Your task to perform on an android device: Search for "corsair k70" on newegg.com, select the first entry, add it to the cart, then select checkout. Image 0: 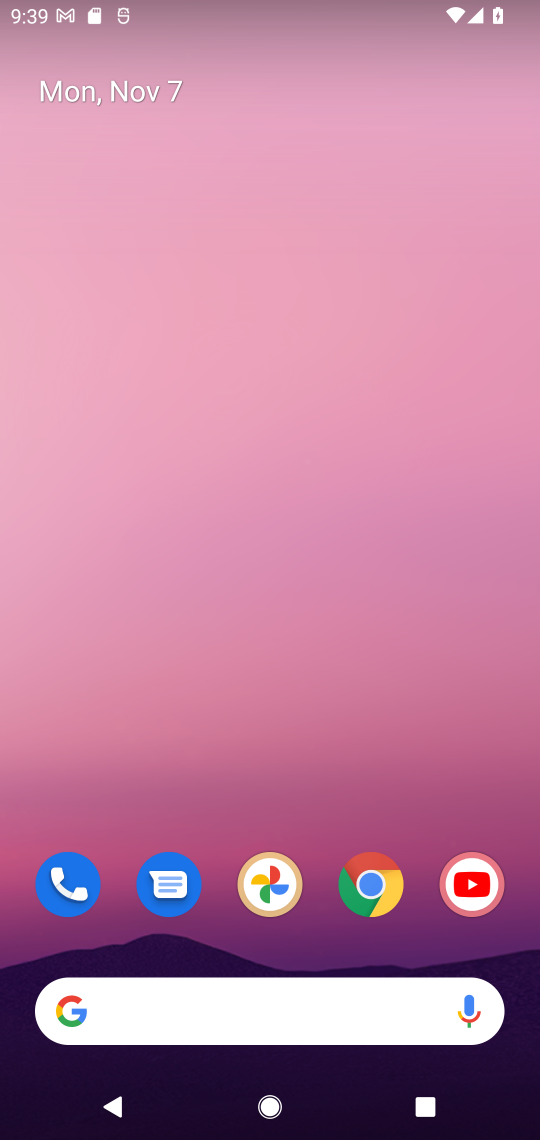
Step 0: click (361, 888)
Your task to perform on an android device: Search for "corsair k70" on newegg.com, select the first entry, add it to the cart, then select checkout. Image 1: 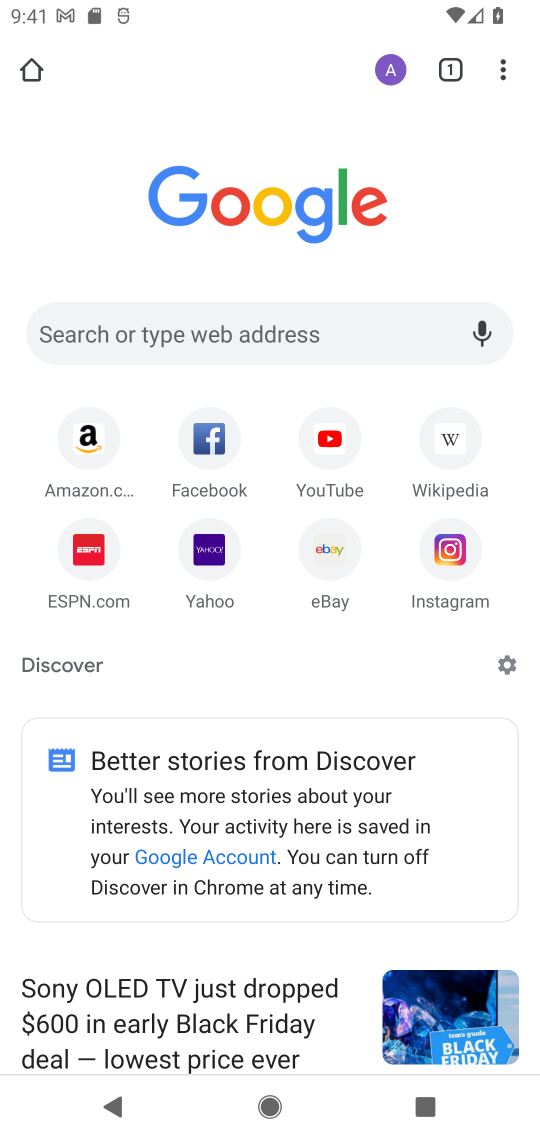
Step 1: click (281, 331)
Your task to perform on an android device: Search for "corsair k70" on newegg.com, select the first entry, add it to the cart, then select checkout. Image 2: 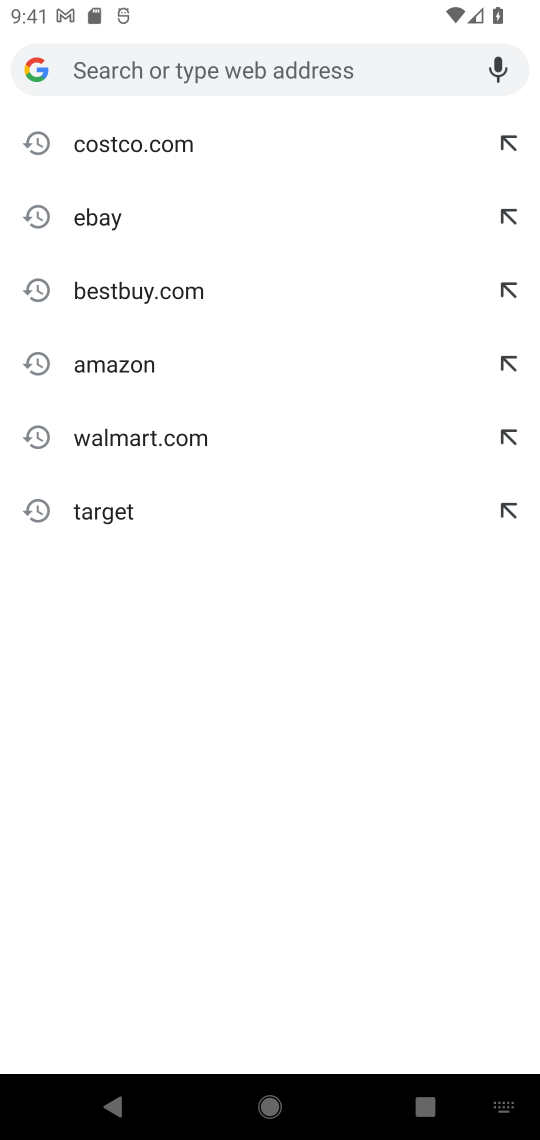
Step 2: type "corsair k70"
Your task to perform on an android device: Search for "corsair k70" on newegg.com, select the first entry, add it to the cart, then select checkout. Image 3: 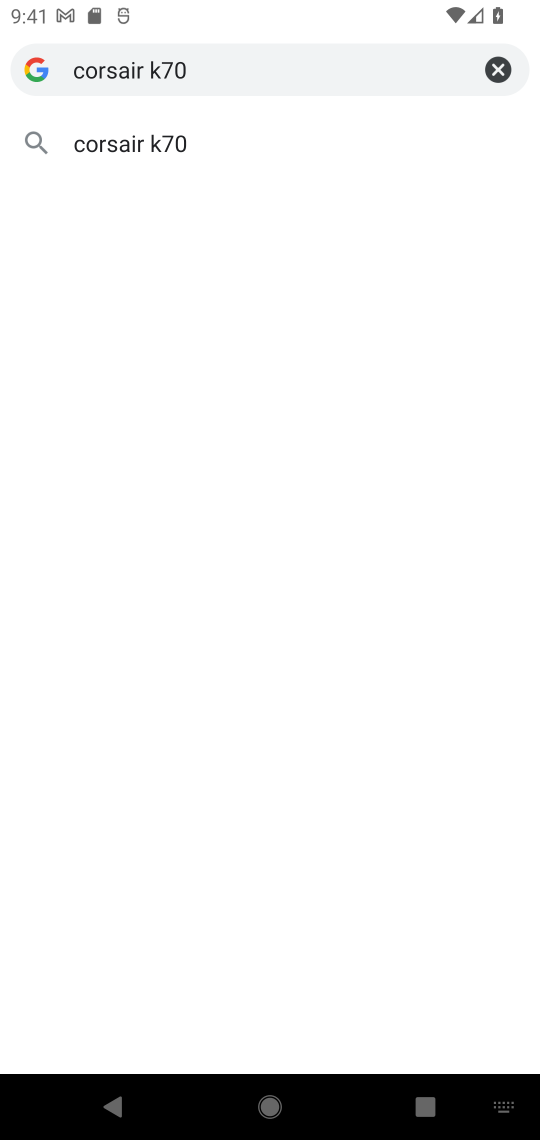
Step 3: click (165, 135)
Your task to perform on an android device: Search for "corsair k70" on newegg.com, select the first entry, add it to the cart, then select checkout. Image 4: 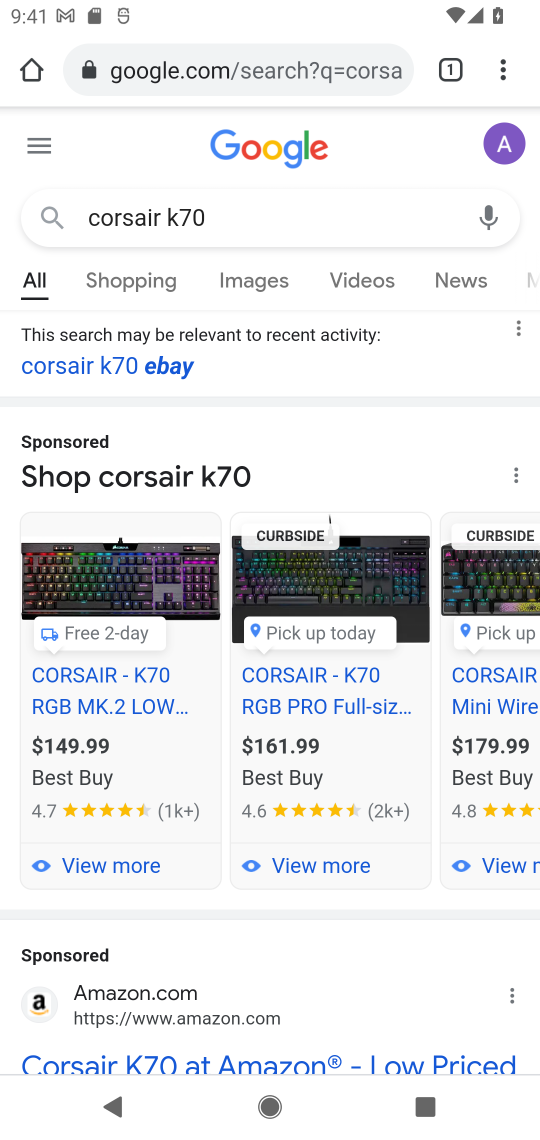
Step 4: click (316, 64)
Your task to perform on an android device: Search for "corsair k70" on newegg.com, select the first entry, add it to the cart, then select checkout. Image 5: 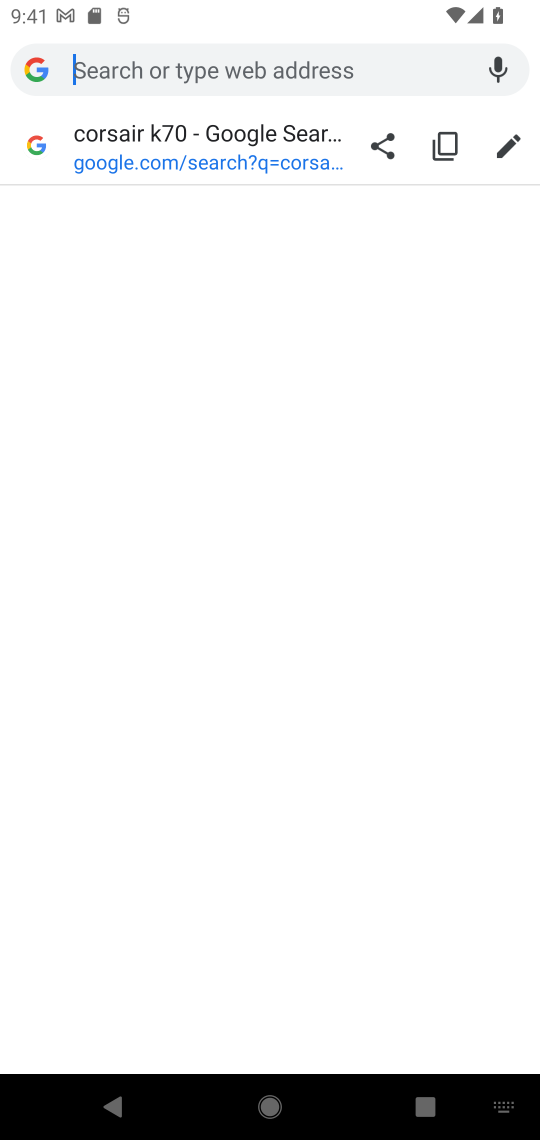
Step 5: type "newegg"
Your task to perform on an android device: Search for "corsair k70" on newegg.com, select the first entry, add it to the cart, then select checkout. Image 6: 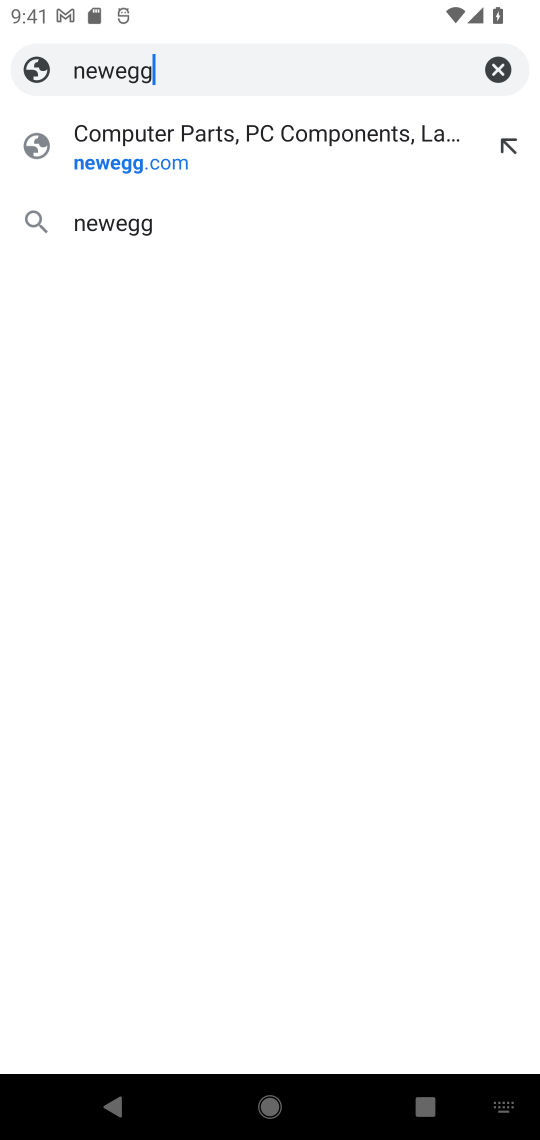
Step 6: click (127, 223)
Your task to perform on an android device: Search for "corsair k70" on newegg.com, select the first entry, add it to the cart, then select checkout. Image 7: 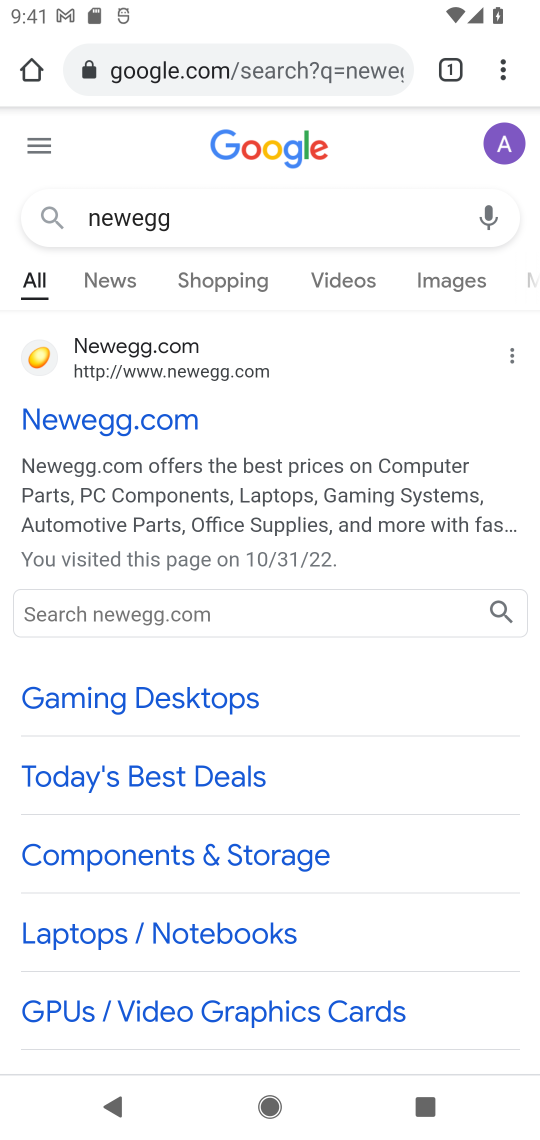
Step 7: click (147, 349)
Your task to perform on an android device: Search for "corsair k70" on newegg.com, select the first entry, add it to the cart, then select checkout. Image 8: 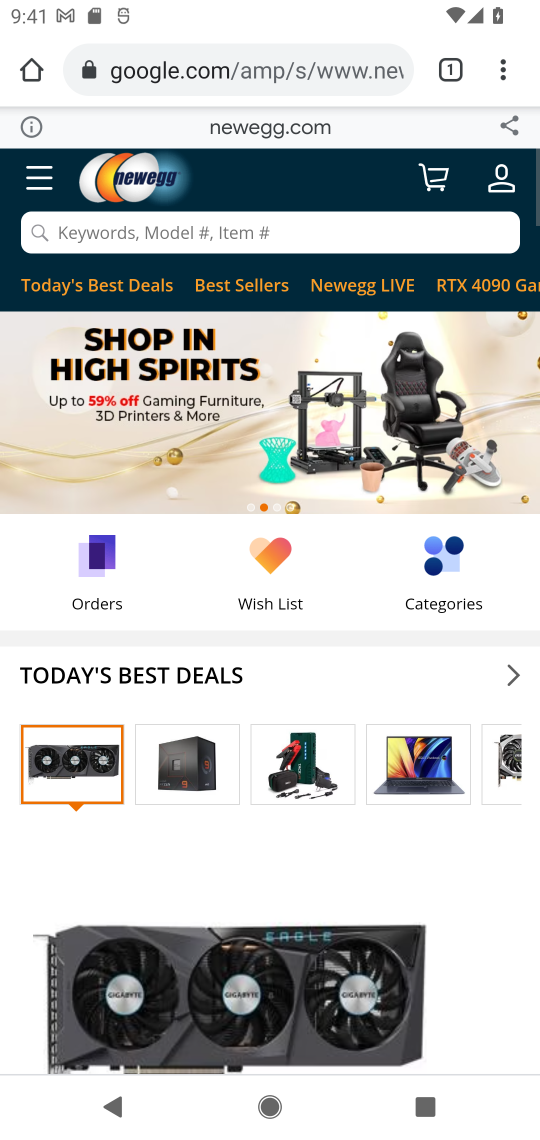
Step 8: click (244, 230)
Your task to perform on an android device: Search for "corsair k70" on newegg.com, select the first entry, add it to the cart, then select checkout. Image 9: 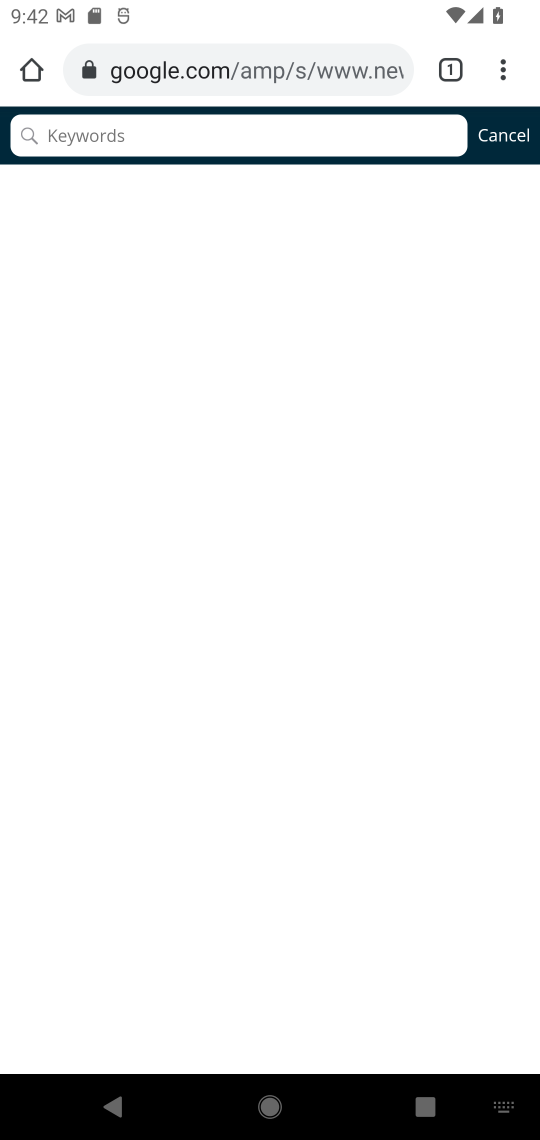
Step 9: type "corsair k70"
Your task to perform on an android device: Search for "corsair k70" on newegg.com, select the first entry, add it to the cart, then select checkout. Image 10: 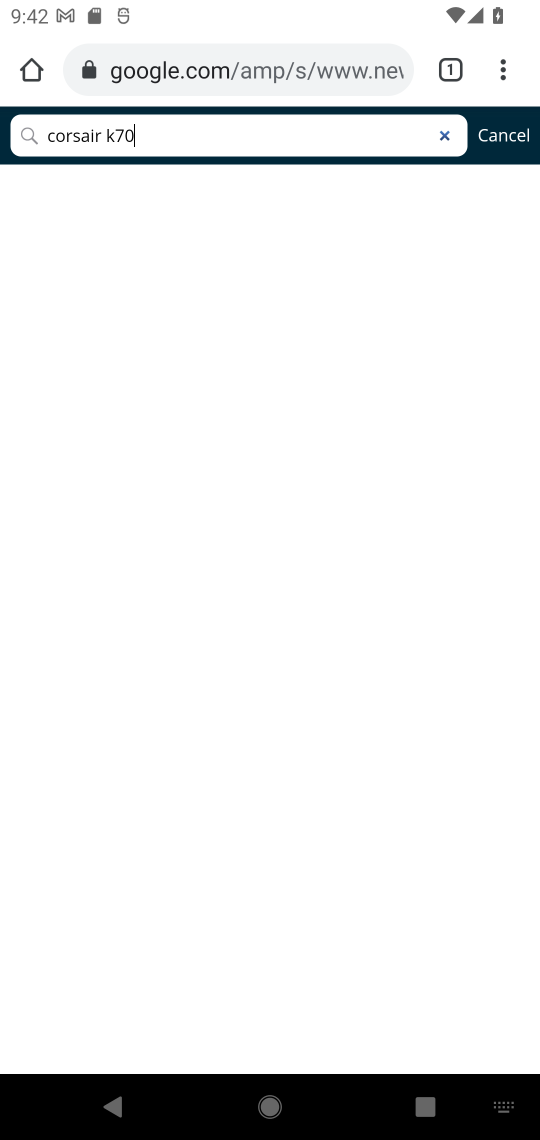
Step 10: press enter
Your task to perform on an android device: Search for "corsair k70" on newegg.com, select the first entry, add it to the cart, then select checkout. Image 11: 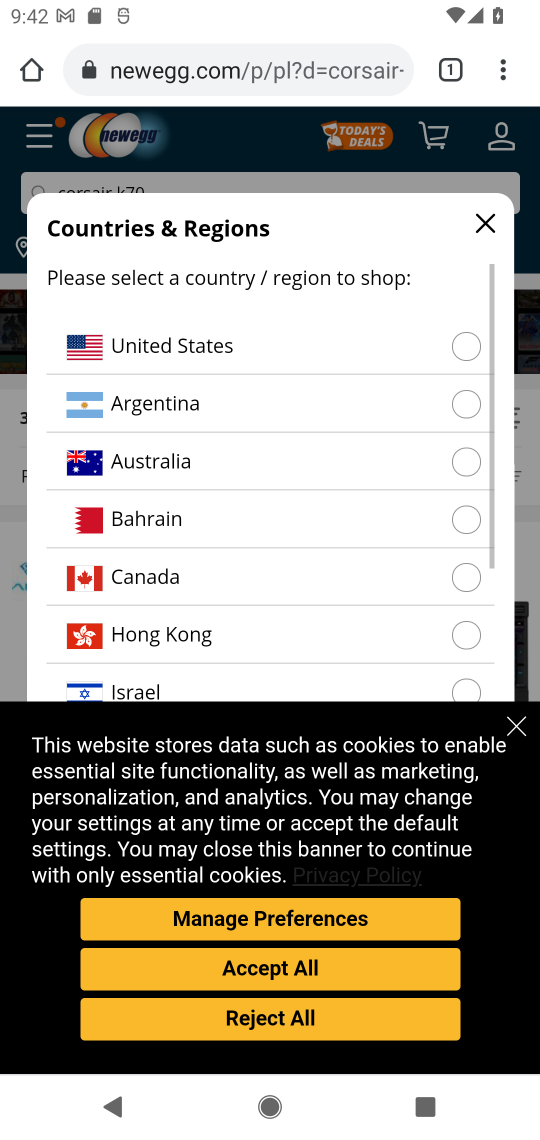
Step 11: click (468, 350)
Your task to perform on an android device: Search for "corsair k70" on newegg.com, select the first entry, add it to the cart, then select checkout. Image 12: 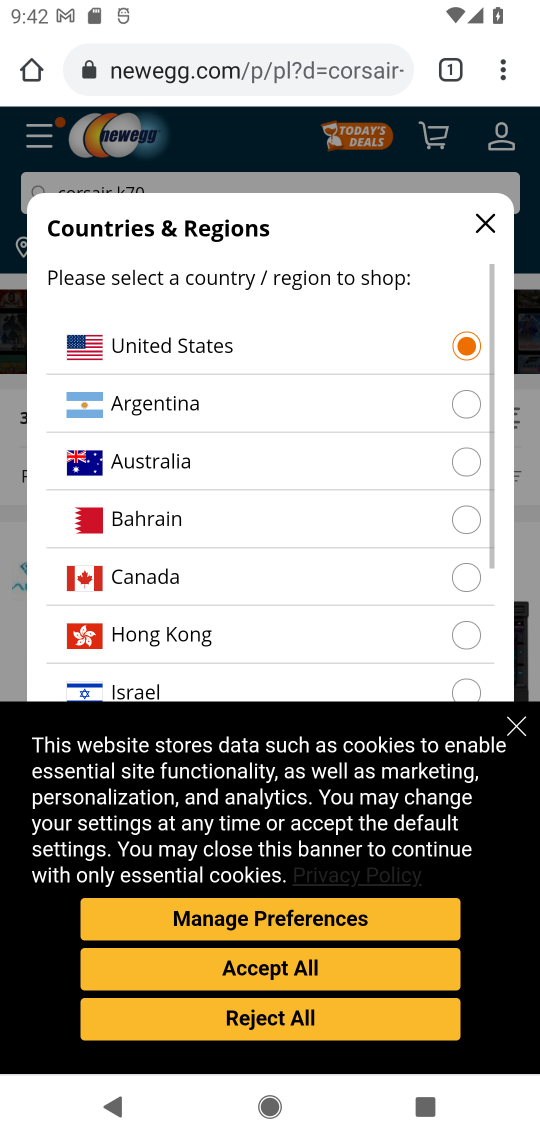
Step 12: click (516, 723)
Your task to perform on an android device: Search for "corsair k70" on newegg.com, select the first entry, add it to the cart, then select checkout. Image 13: 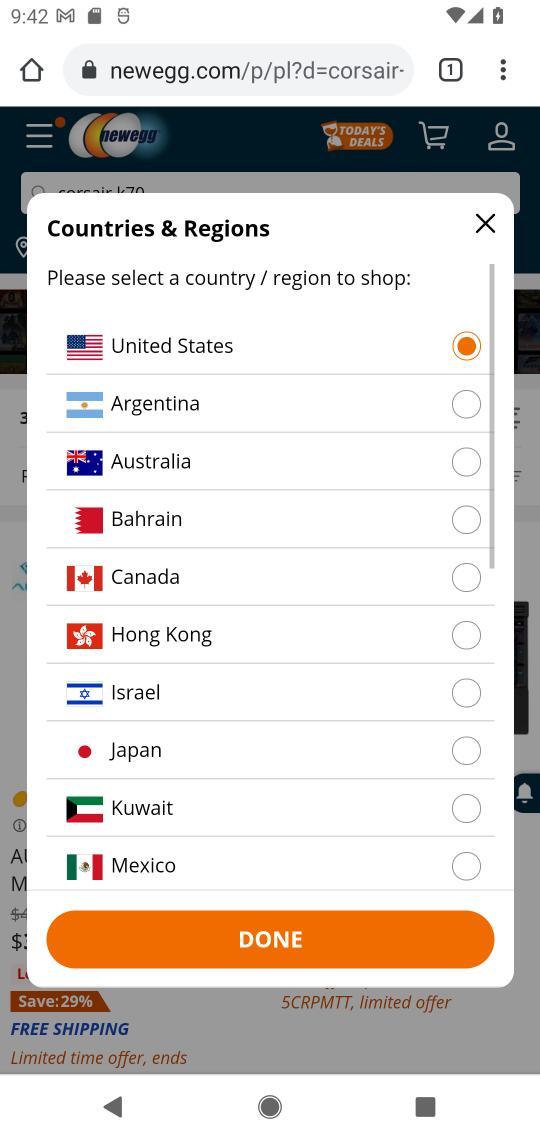
Step 13: click (294, 937)
Your task to perform on an android device: Search for "corsair k70" on newegg.com, select the first entry, add it to the cart, then select checkout. Image 14: 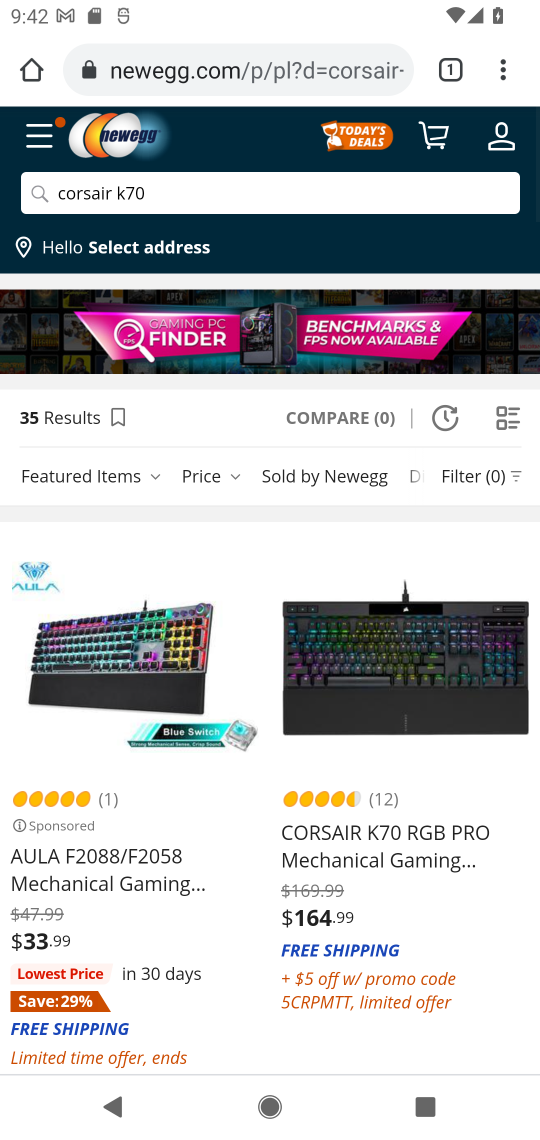
Step 14: click (359, 690)
Your task to perform on an android device: Search for "corsair k70" on newegg.com, select the first entry, add it to the cart, then select checkout. Image 15: 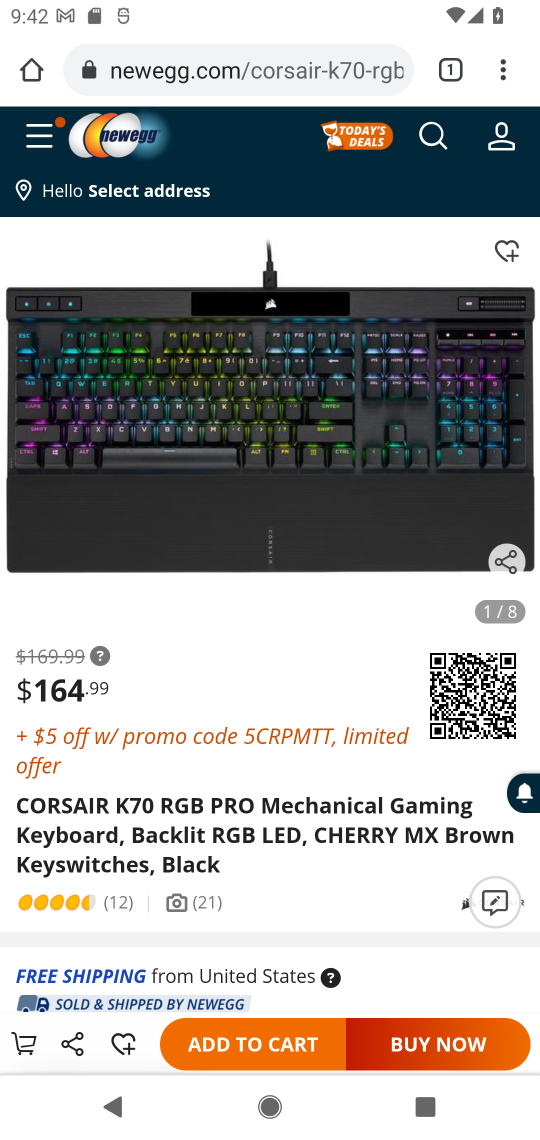
Step 15: click (265, 1042)
Your task to perform on an android device: Search for "corsair k70" on newegg.com, select the first entry, add it to the cart, then select checkout. Image 16: 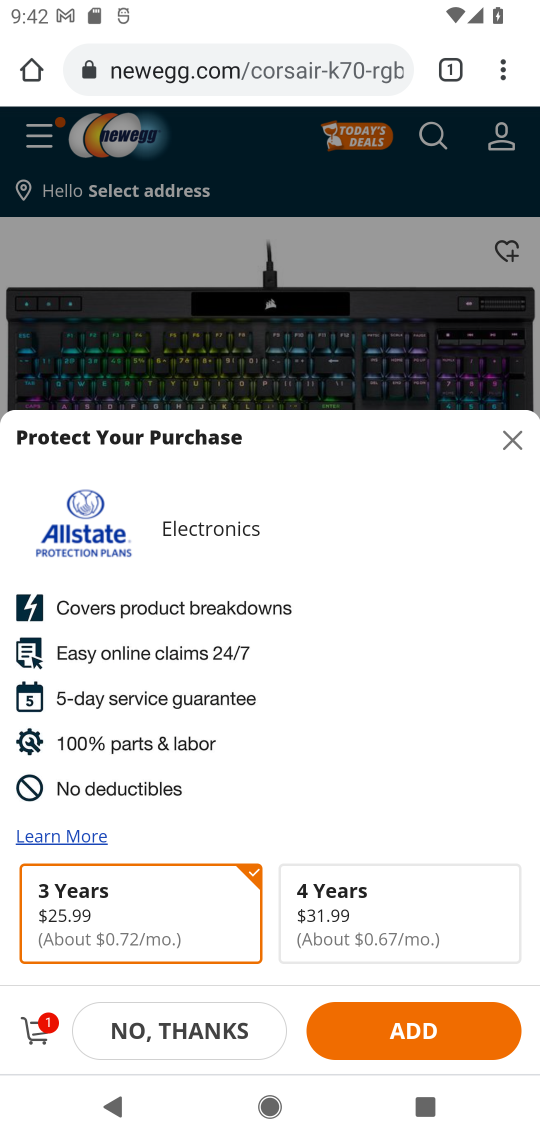
Step 16: click (519, 440)
Your task to perform on an android device: Search for "corsair k70" on newegg.com, select the first entry, add it to the cart, then select checkout. Image 17: 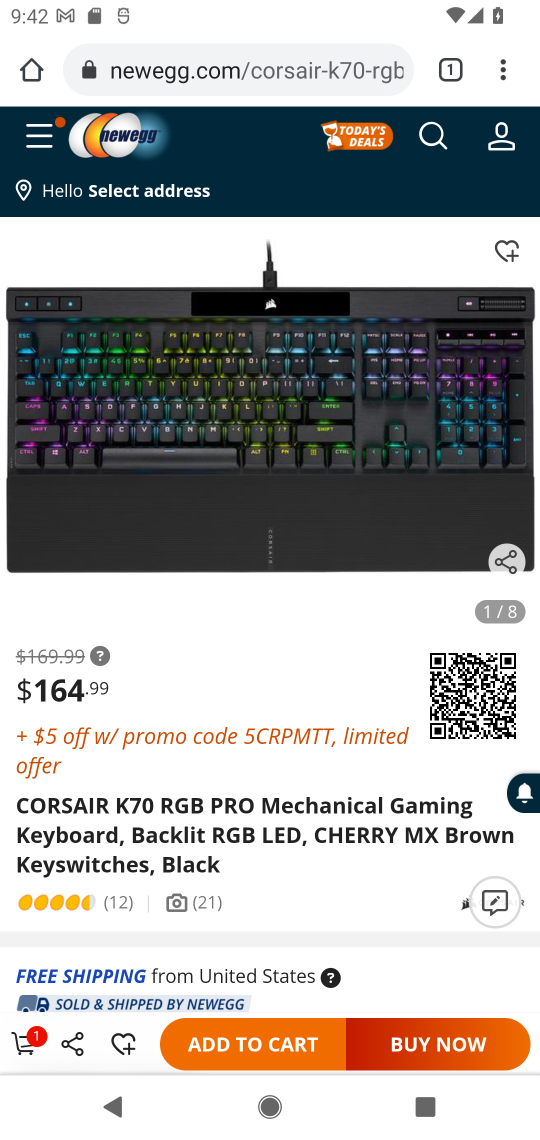
Step 17: click (22, 1039)
Your task to perform on an android device: Search for "corsair k70" on newegg.com, select the first entry, add it to the cart, then select checkout. Image 18: 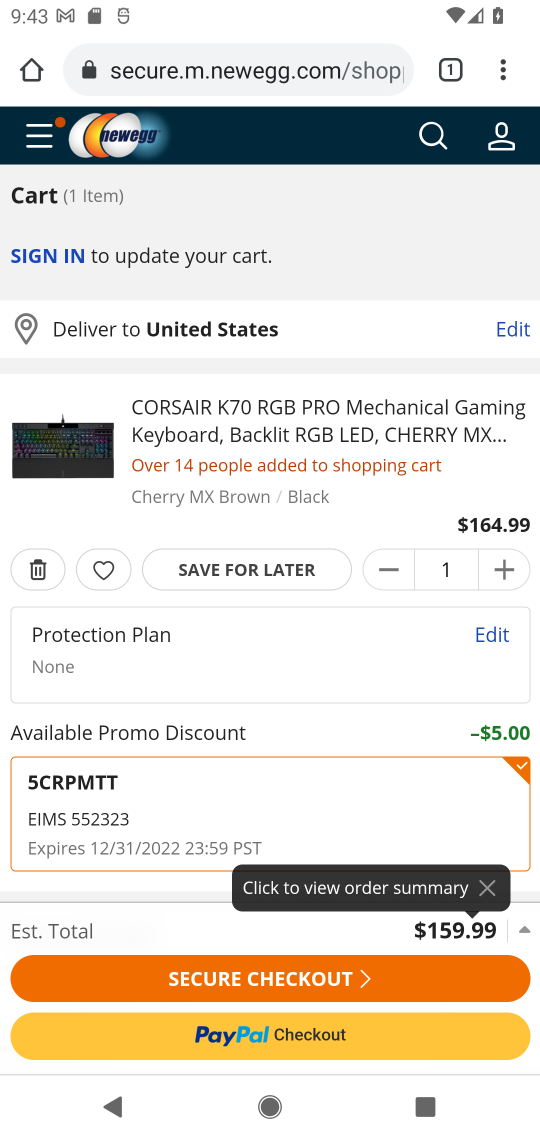
Step 18: click (189, 977)
Your task to perform on an android device: Search for "corsair k70" on newegg.com, select the first entry, add it to the cart, then select checkout. Image 19: 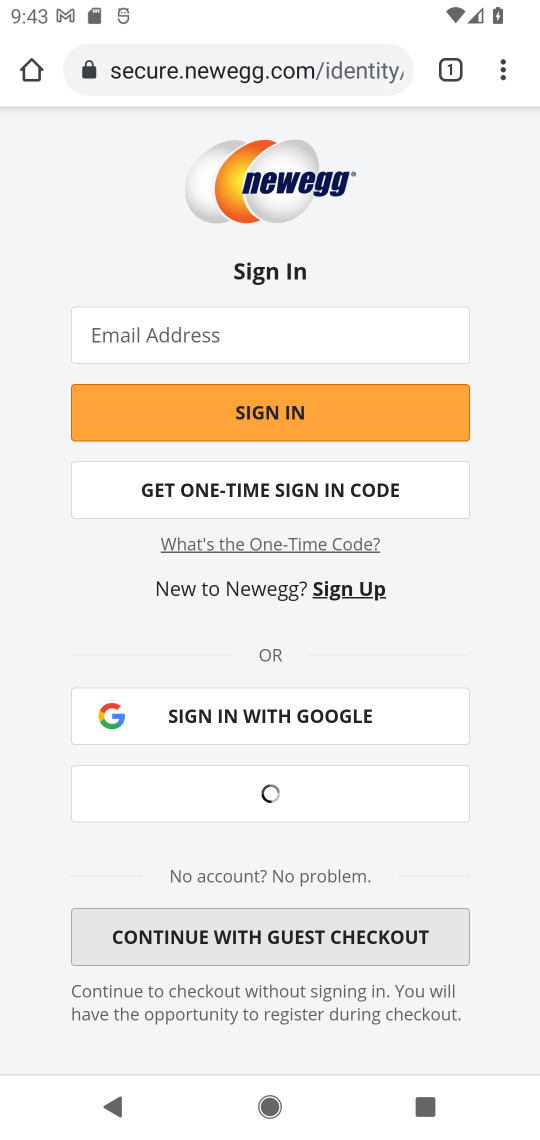
Step 19: task complete